Your task to perform on an android device: Open settings Image 0: 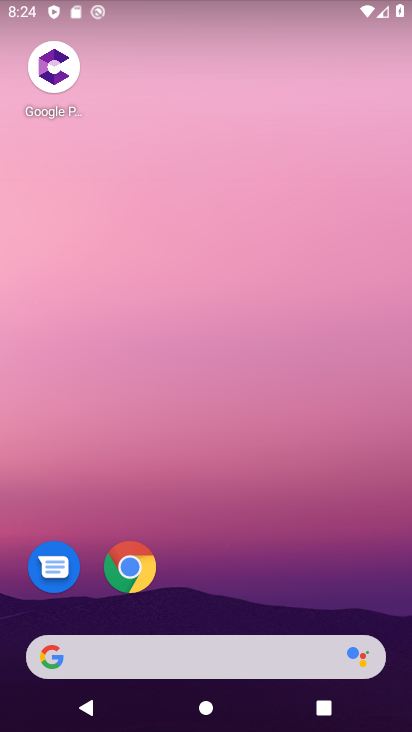
Step 0: drag from (404, 618) to (323, 29)
Your task to perform on an android device: Open settings Image 1: 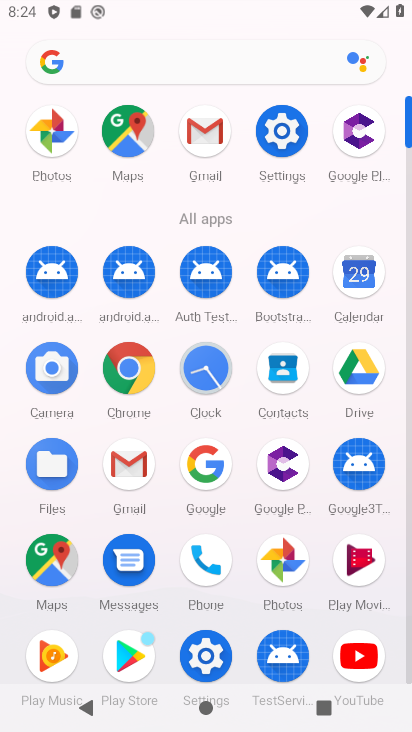
Step 1: click (206, 658)
Your task to perform on an android device: Open settings Image 2: 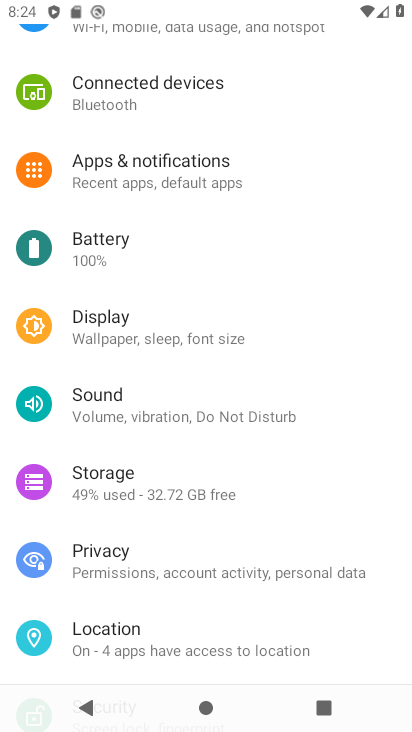
Step 2: task complete